Your task to perform on an android device: turn off javascript in the chrome app Image 0: 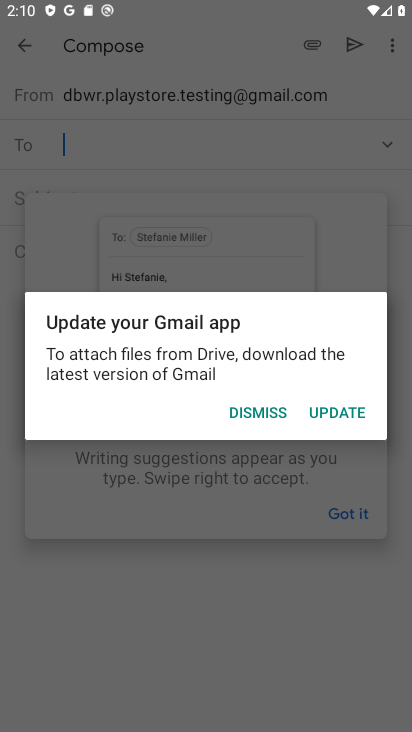
Step 0: press home button
Your task to perform on an android device: turn off javascript in the chrome app Image 1: 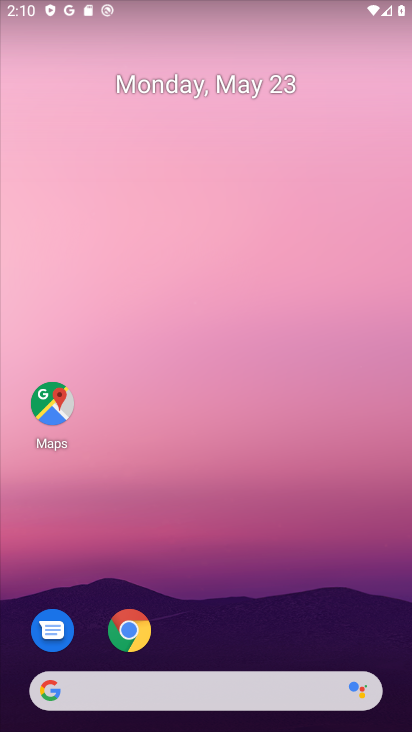
Step 1: drag from (321, 533) to (285, 107)
Your task to perform on an android device: turn off javascript in the chrome app Image 2: 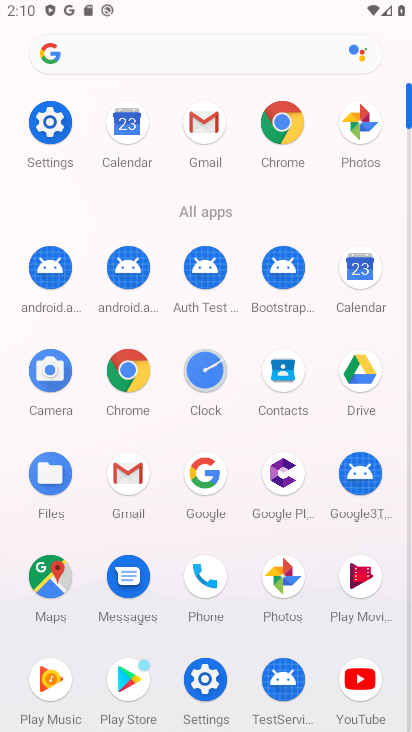
Step 2: click (292, 136)
Your task to perform on an android device: turn off javascript in the chrome app Image 3: 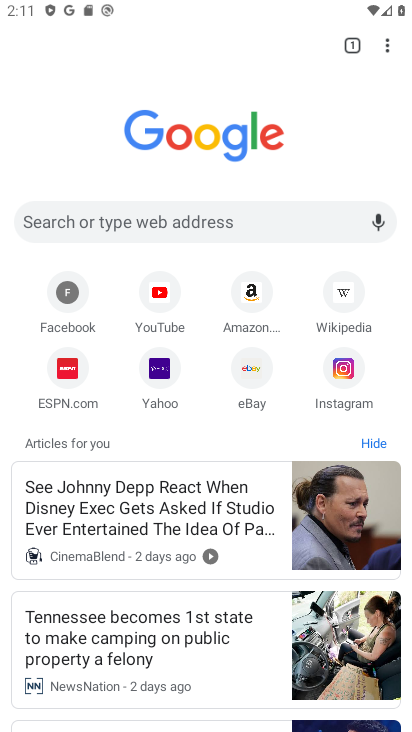
Step 3: drag from (393, 52) to (238, 383)
Your task to perform on an android device: turn off javascript in the chrome app Image 4: 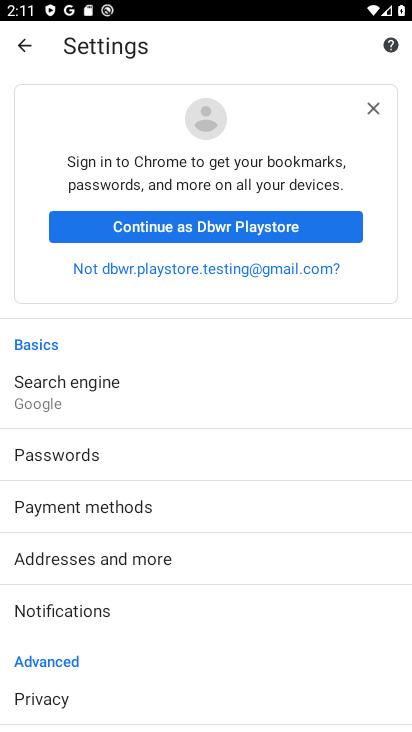
Step 4: drag from (107, 681) to (88, 389)
Your task to perform on an android device: turn off javascript in the chrome app Image 5: 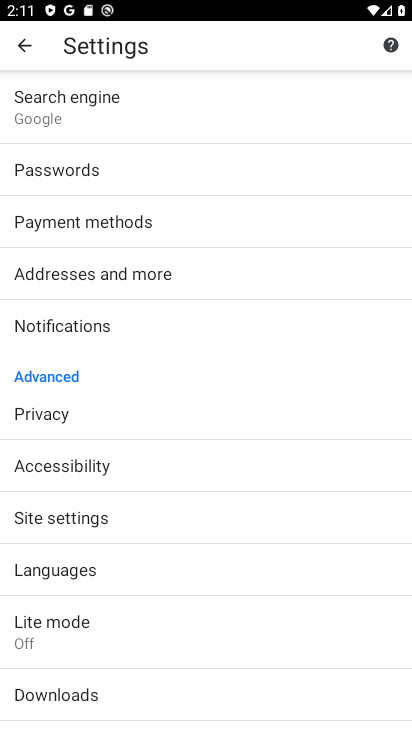
Step 5: click (29, 521)
Your task to perform on an android device: turn off javascript in the chrome app Image 6: 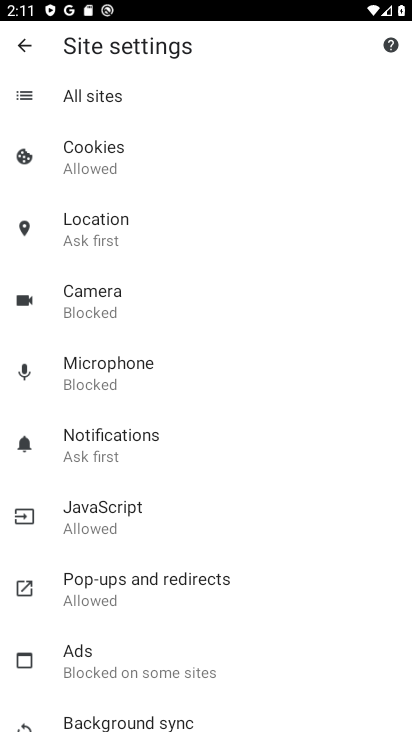
Step 6: click (86, 538)
Your task to perform on an android device: turn off javascript in the chrome app Image 7: 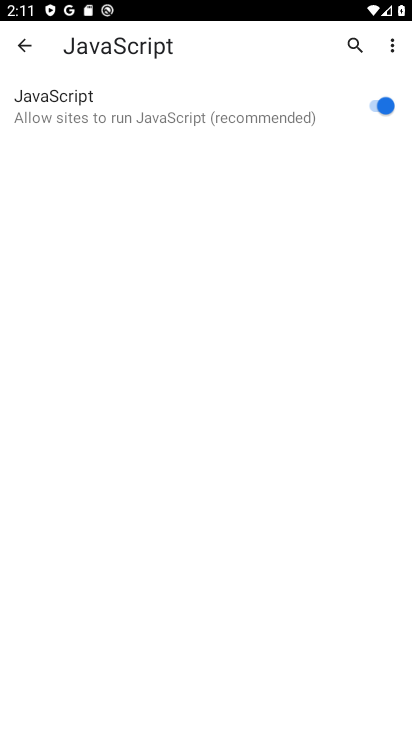
Step 7: click (384, 100)
Your task to perform on an android device: turn off javascript in the chrome app Image 8: 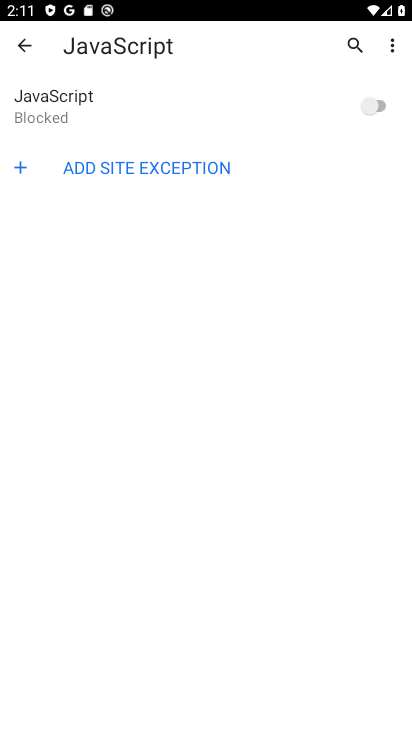
Step 8: task complete